Your task to perform on an android device: change the clock display to show seconds Image 0: 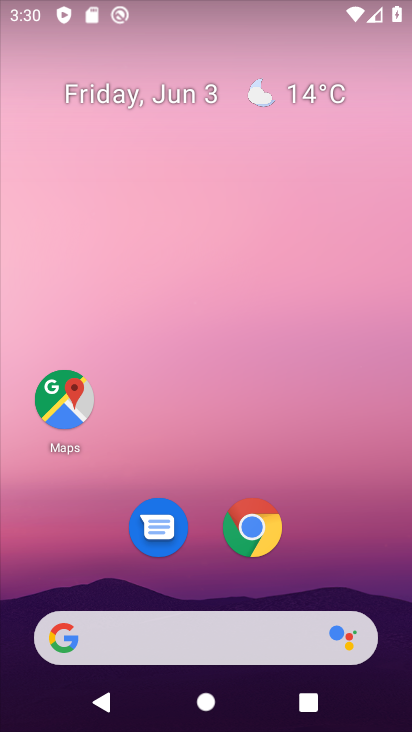
Step 0: drag from (355, 512) to (284, 0)
Your task to perform on an android device: change the clock display to show seconds Image 1: 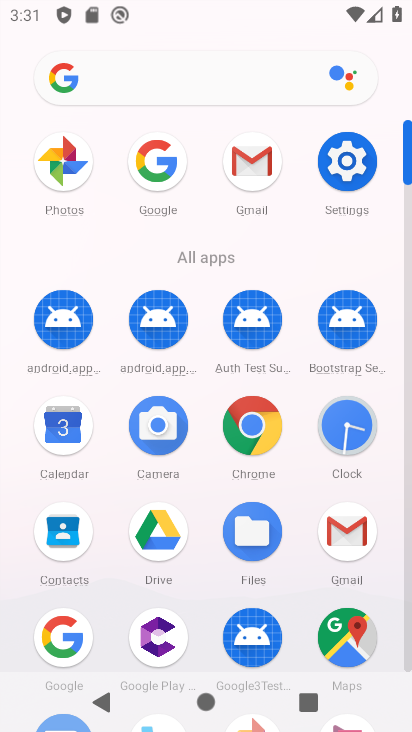
Step 1: click (349, 426)
Your task to perform on an android device: change the clock display to show seconds Image 2: 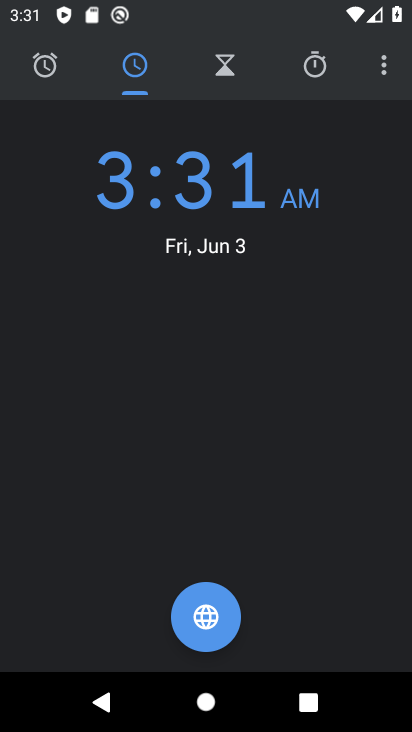
Step 2: click (385, 66)
Your task to perform on an android device: change the clock display to show seconds Image 3: 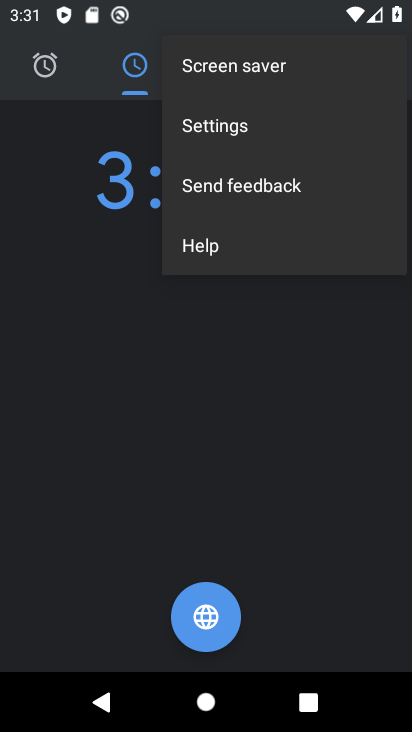
Step 3: click (248, 131)
Your task to perform on an android device: change the clock display to show seconds Image 4: 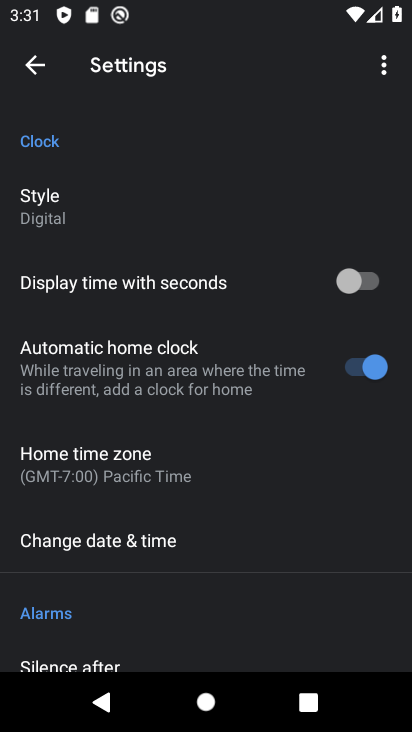
Step 4: click (364, 284)
Your task to perform on an android device: change the clock display to show seconds Image 5: 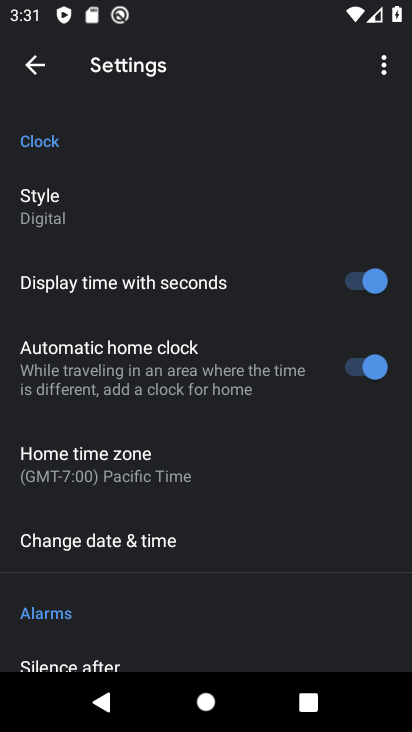
Step 5: task complete